Your task to perform on an android device: show emergency info Image 0: 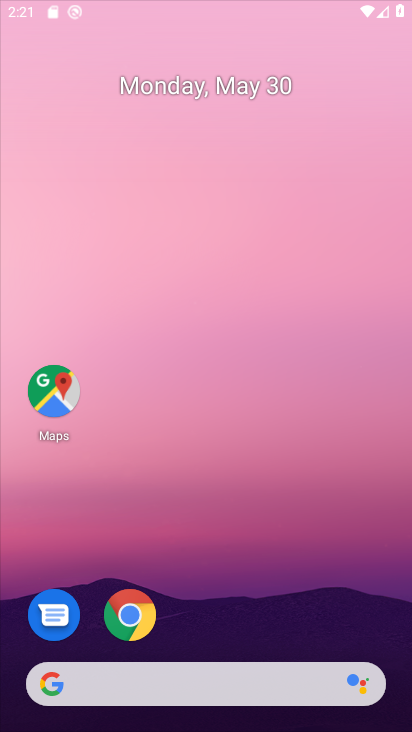
Step 0: click (278, 29)
Your task to perform on an android device: show emergency info Image 1: 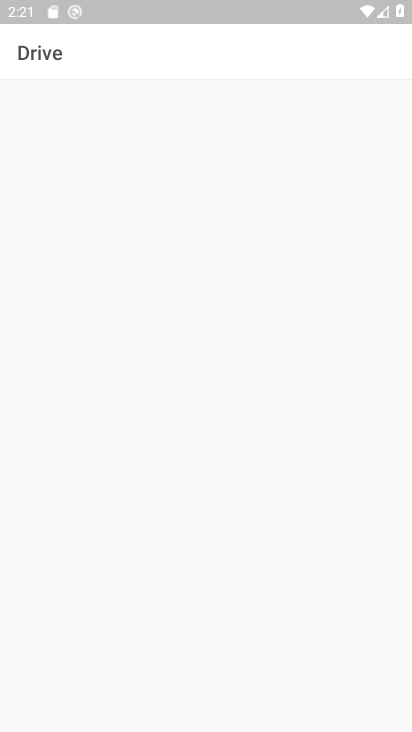
Step 1: drag from (293, 615) to (322, 99)
Your task to perform on an android device: show emergency info Image 2: 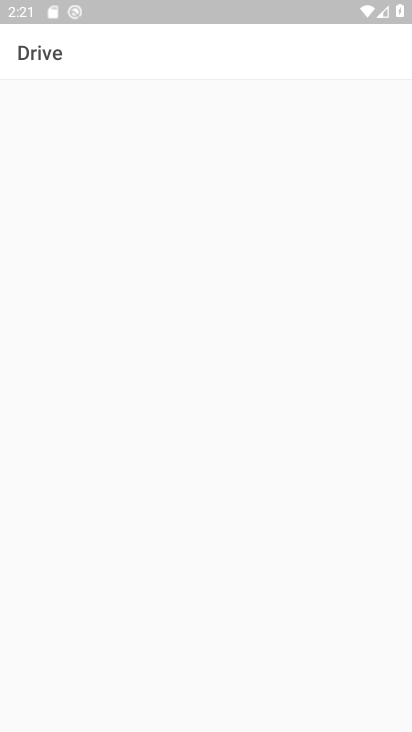
Step 2: press home button
Your task to perform on an android device: show emergency info Image 3: 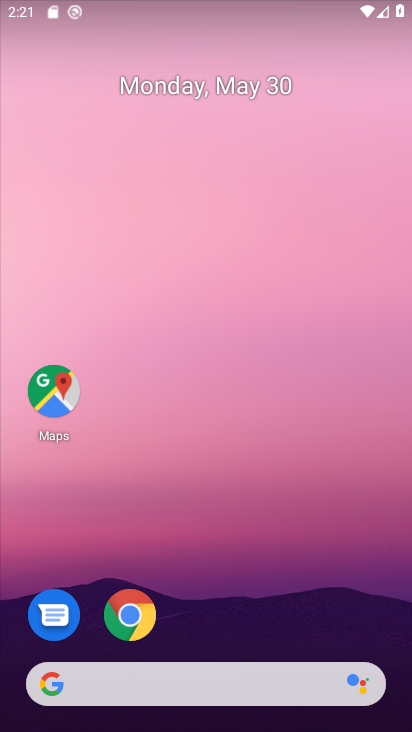
Step 3: drag from (243, 575) to (271, 13)
Your task to perform on an android device: show emergency info Image 4: 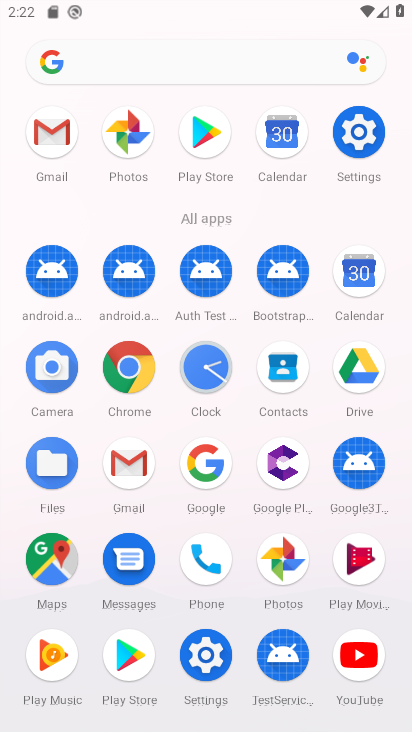
Step 4: click (363, 136)
Your task to perform on an android device: show emergency info Image 5: 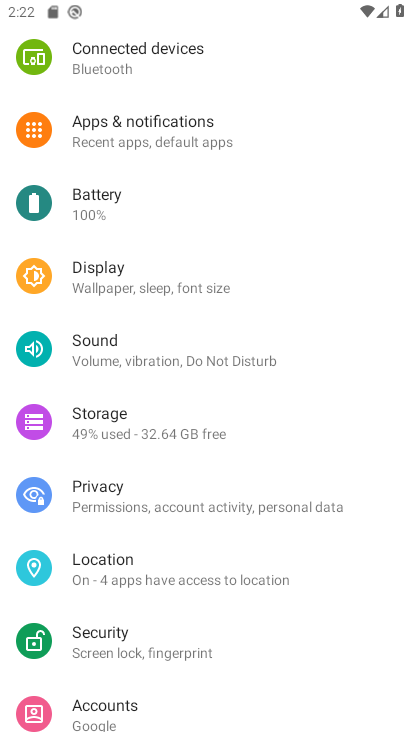
Step 5: drag from (219, 561) to (265, 120)
Your task to perform on an android device: show emergency info Image 6: 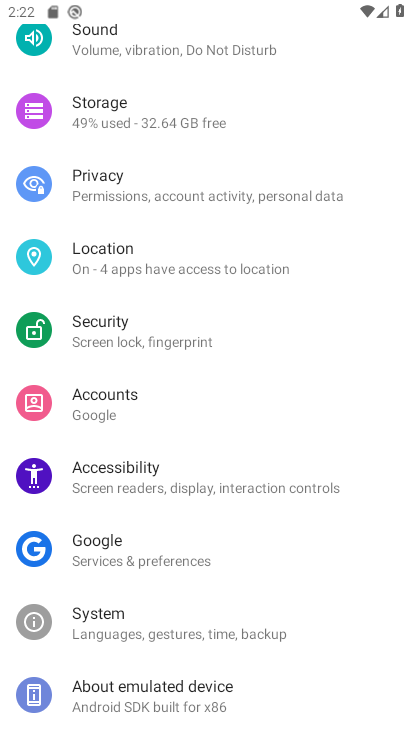
Step 6: click (190, 682)
Your task to perform on an android device: show emergency info Image 7: 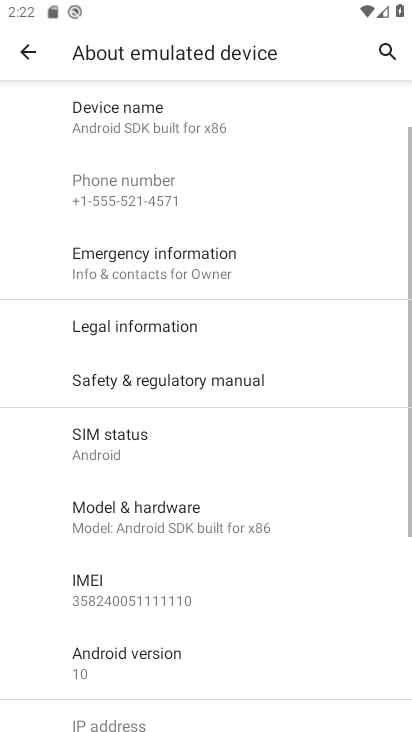
Step 7: click (208, 260)
Your task to perform on an android device: show emergency info Image 8: 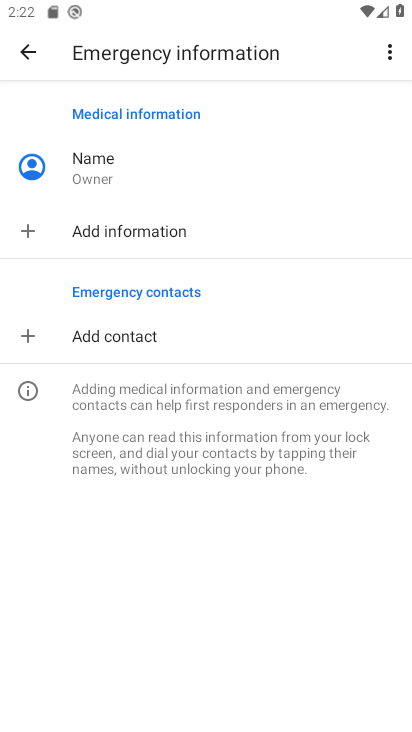
Step 8: task complete